Your task to perform on an android device: Empty the shopping cart on amazon. Search for "apple airpods pro" on amazon, select the first entry, add it to the cart, then select checkout. Image 0: 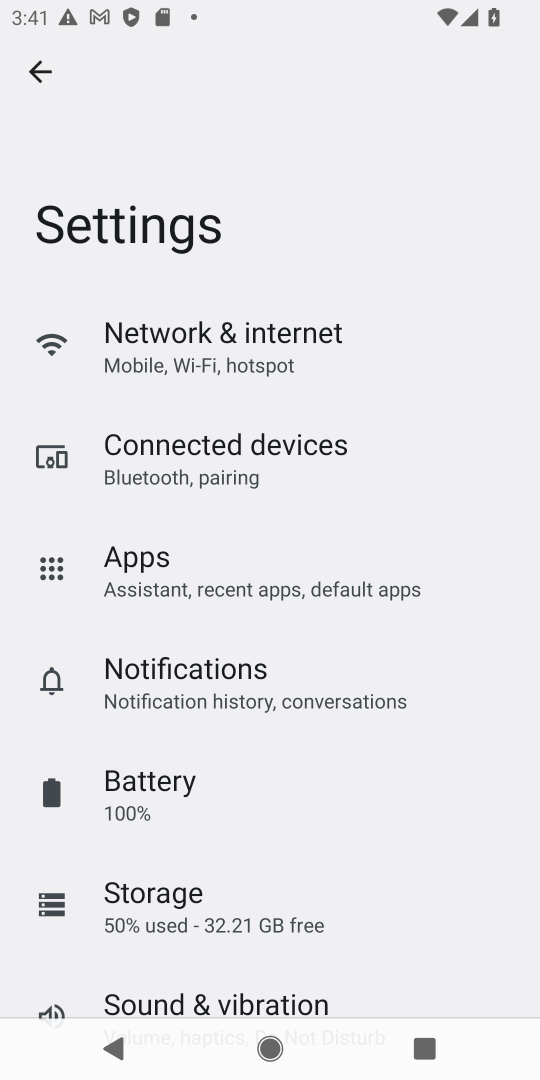
Step 0: press home button
Your task to perform on an android device: Empty the shopping cart on amazon. Search for "apple airpods pro" on amazon, select the first entry, add it to the cart, then select checkout. Image 1: 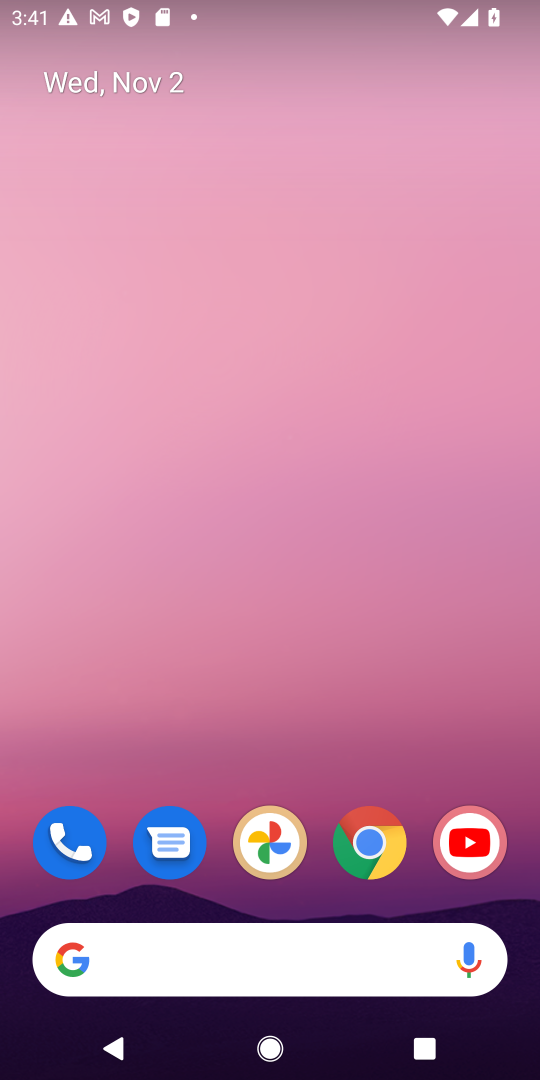
Step 1: click (375, 837)
Your task to perform on an android device: Empty the shopping cart on amazon. Search for "apple airpods pro" on amazon, select the first entry, add it to the cart, then select checkout. Image 2: 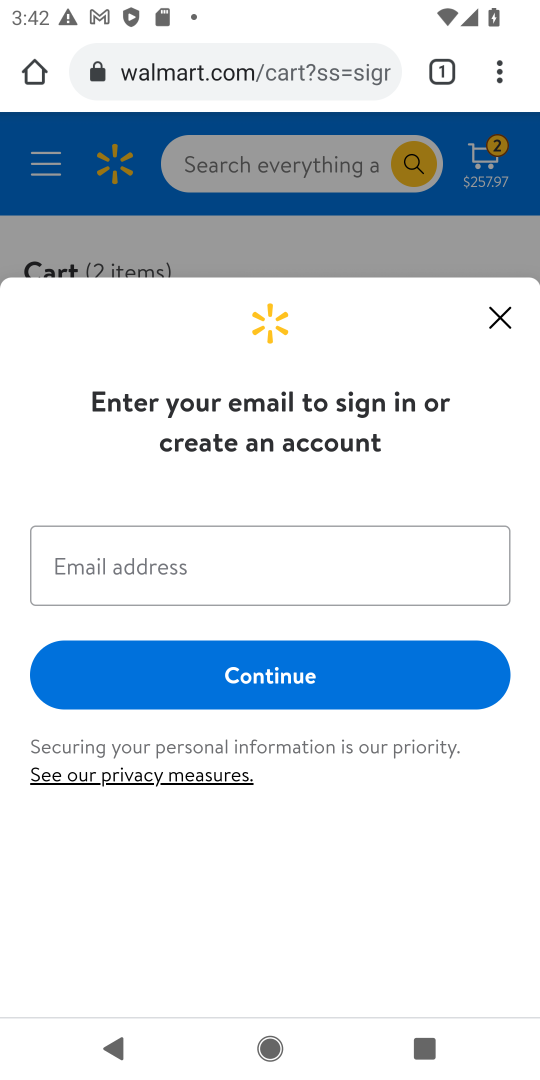
Step 2: click (314, 64)
Your task to perform on an android device: Empty the shopping cart on amazon. Search for "apple airpods pro" on amazon, select the first entry, add it to the cart, then select checkout. Image 3: 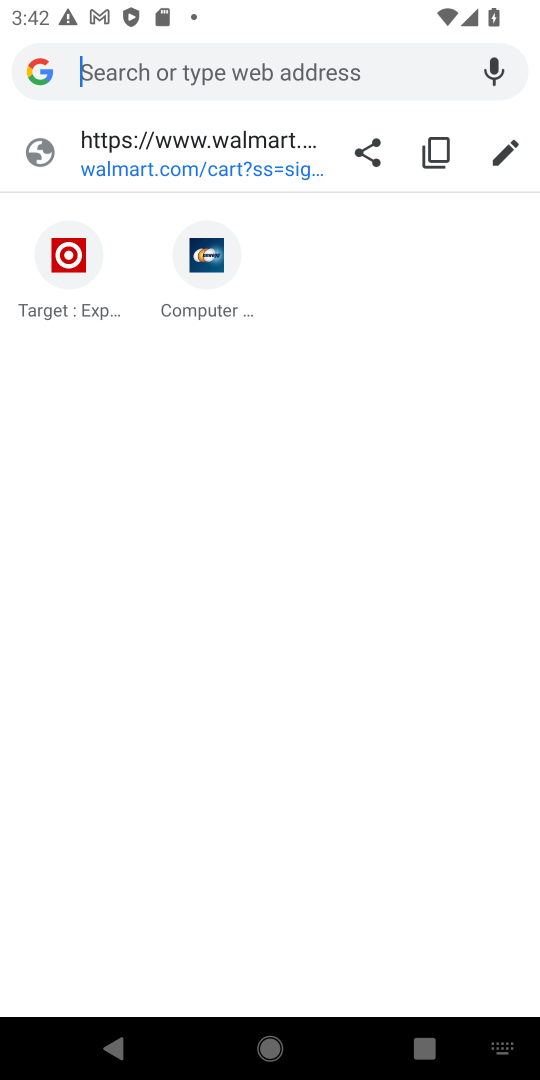
Step 3: type "amazon"
Your task to perform on an android device: Empty the shopping cart on amazon. Search for "apple airpods pro" on amazon, select the first entry, add it to the cart, then select checkout. Image 4: 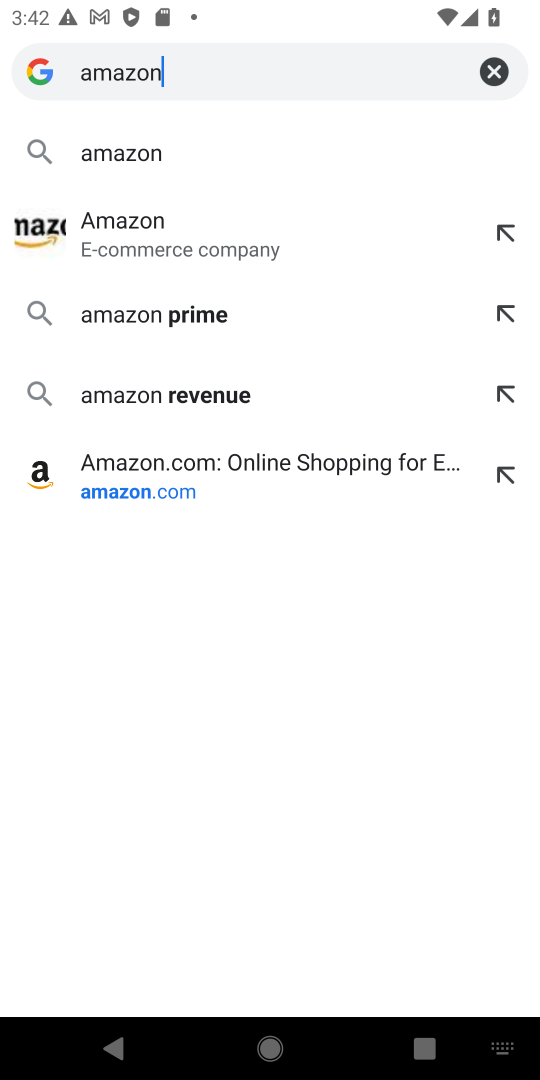
Step 4: click (131, 162)
Your task to perform on an android device: Empty the shopping cart on amazon. Search for "apple airpods pro" on amazon, select the first entry, add it to the cart, then select checkout. Image 5: 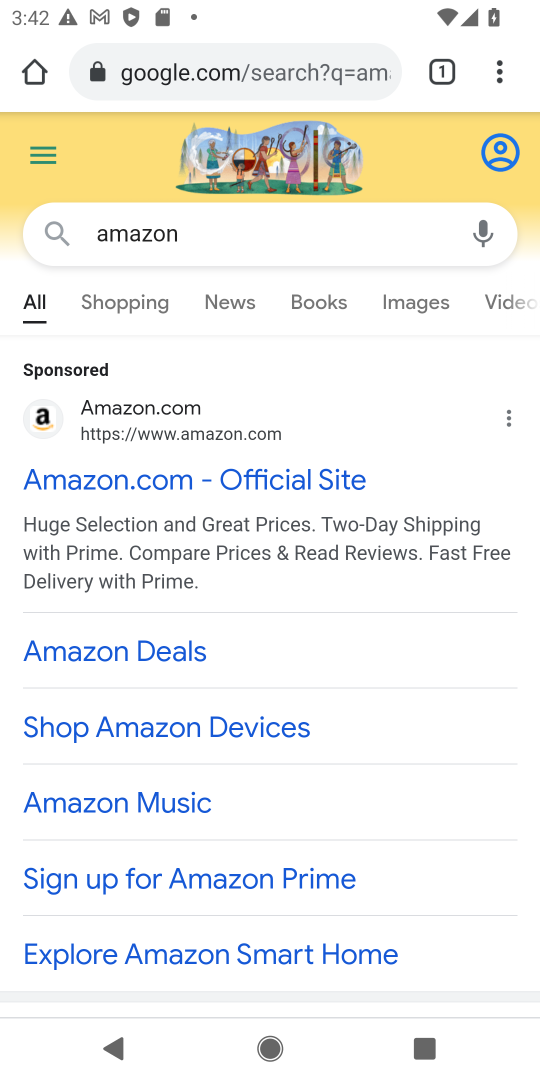
Step 5: click (123, 412)
Your task to perform on an android device: Empty the shopping cart on amazon. Search for "apple airpods pro" on amazon, select the first entry, add it to the cart, then select checkout. Image 6: 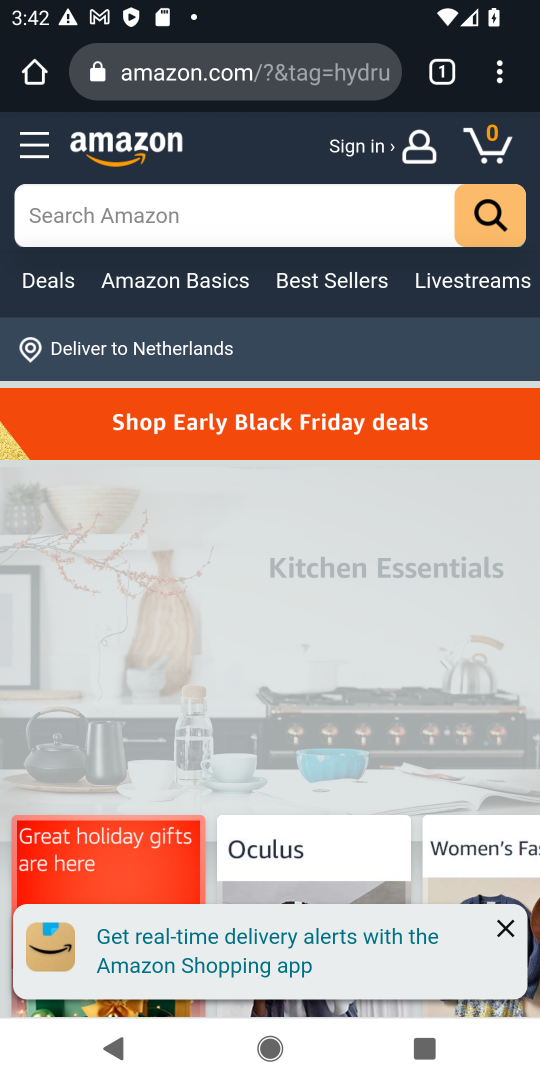
Step 6: click (496, 143)
Your task to perform on an android device: Empty the shopping cart on amazon. Search for "apple airpods pro" on amazon, select the first entry, add it to the cart, then select checkout. Image 7: 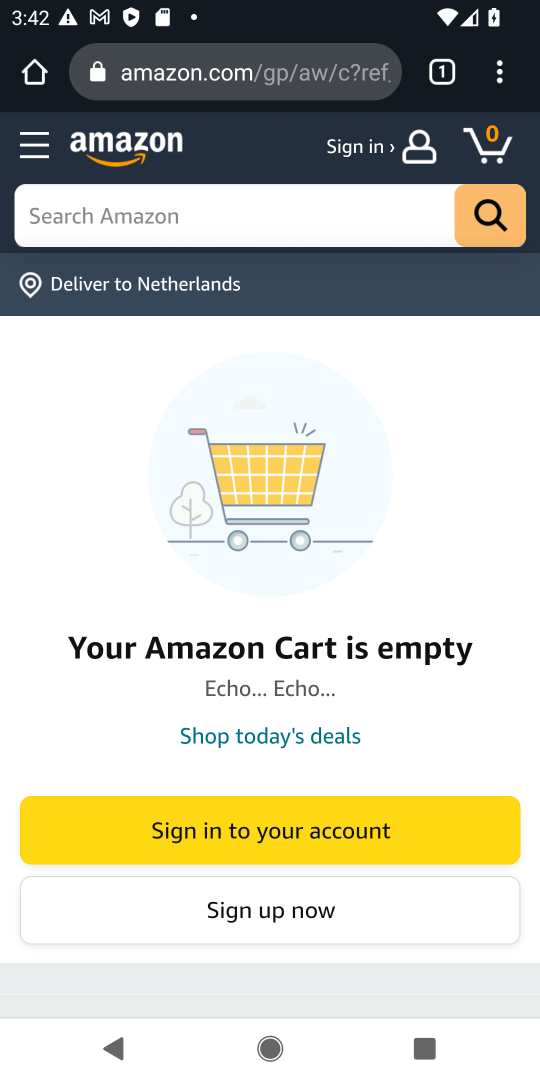
Step 7: click (256, 222)
Your task to perform on an android device: Empty the shopping cart on amazon. Search for "apple airpods pro" on amazon, select the first entry, add it to the cart, then select checkout. Image 8: 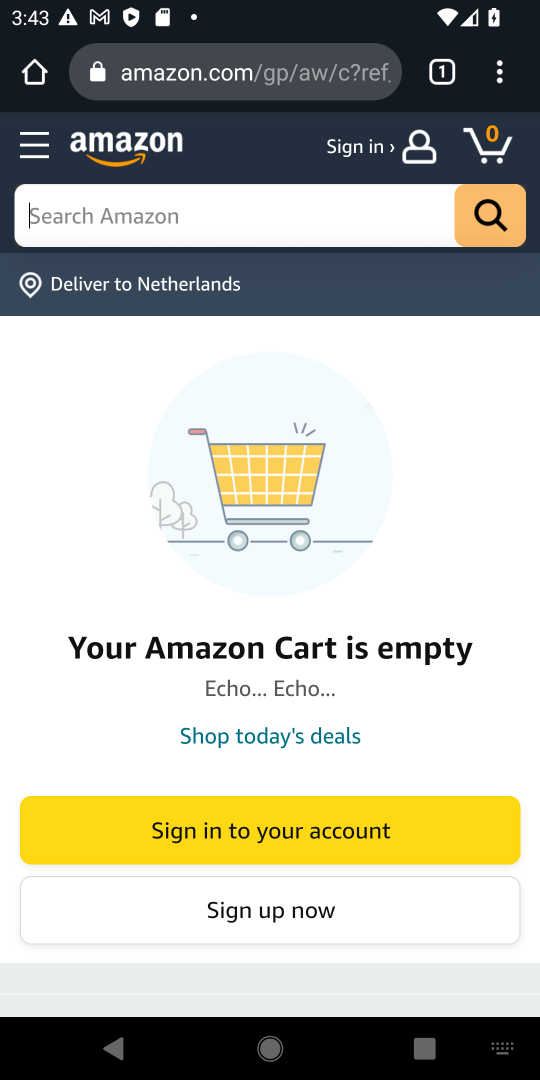
Step 8: type "apple airpods pro"
Your task to perform on an android device: Empty the shopping cart on amazon. Search for "apple airpods pro" on amazon, select the first entry, add it to the cart, then select checkout. Image 9: 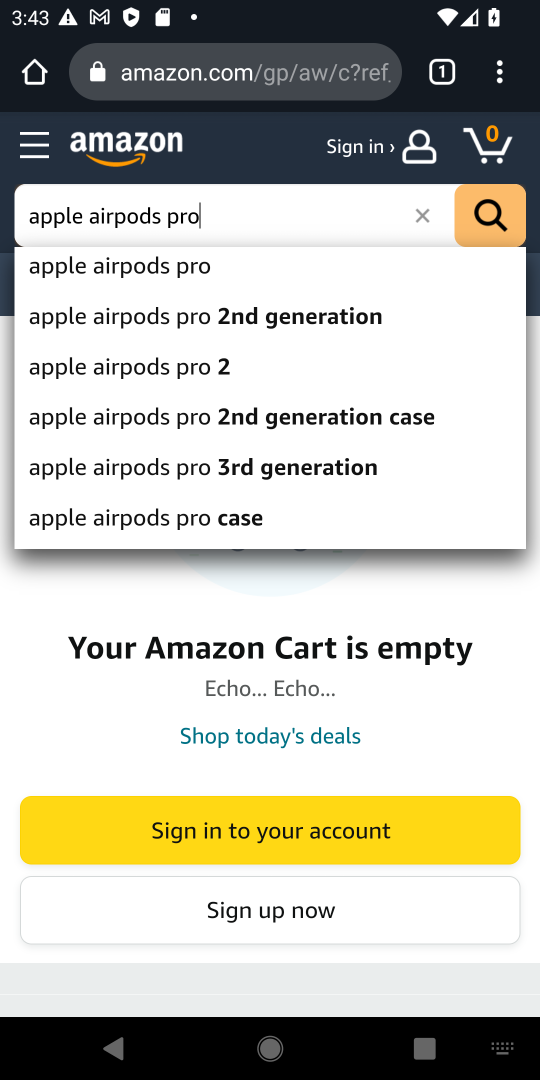
Step 9: click (125, 265)
Your task to perform on an android device: Empty the shopping cart on amazon. Search for "apple airpods pro" on amazon, select the first entry, add it to the cart, then select checkout. Image 10: 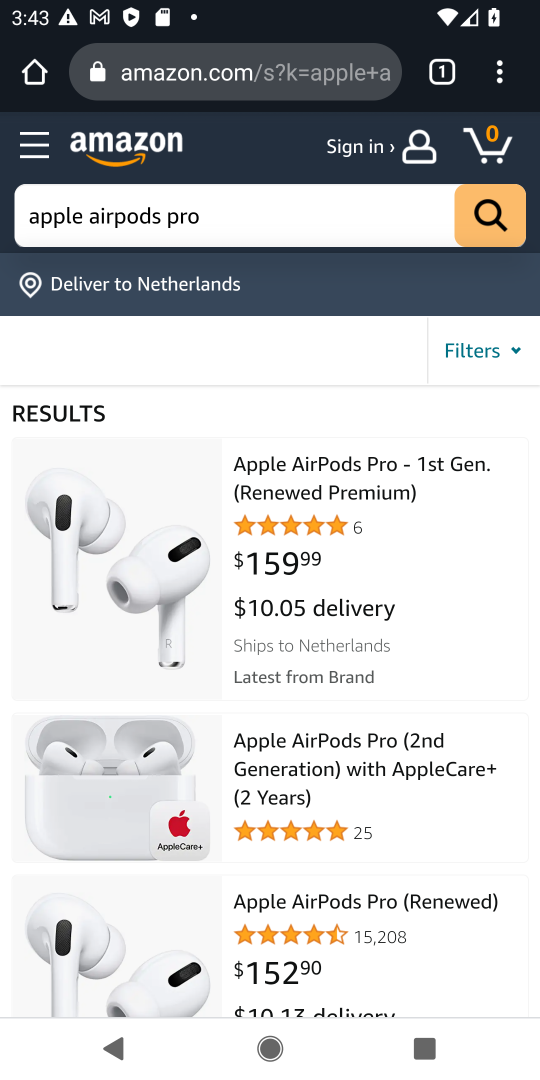
Step 10: click (294, 482)
Your task to perform on an android device: Empty the shopping cart on amazon. Search for "apple airpods pro" on amazon, select the first entry, add it to the cart, then select checkout. Image 11: 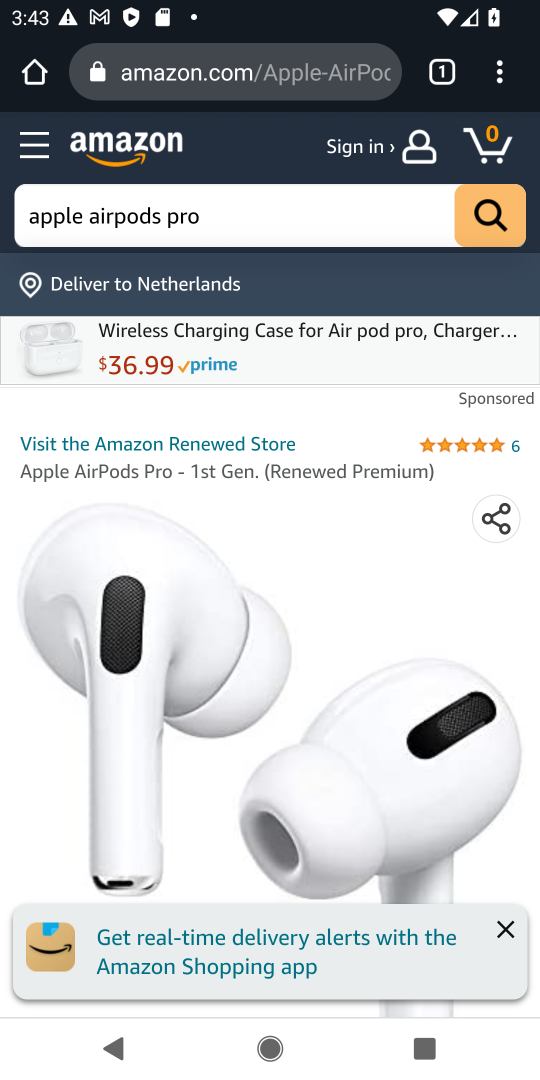
Step 11: drag from (477, 655) to (335, 34)
Your task to perform on an android device: Empty the shopping cart on amazon. Search for "apple airpods pro" on amazon, select the first entry, add it to the cart, then select checkout. Image 12: 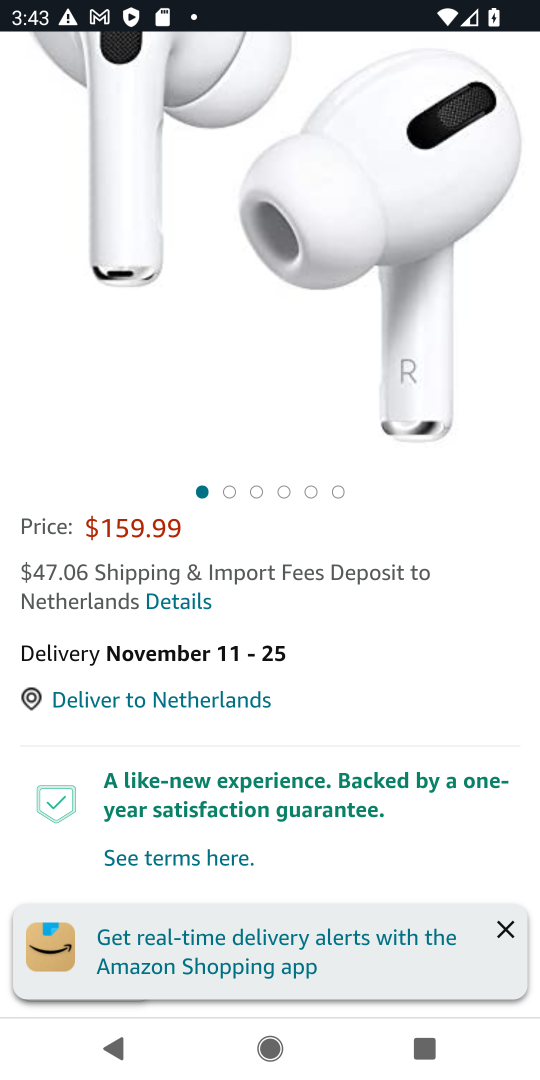
Step 12: drag from (373, 866) to (294, 460)
Your task to perform on an android device: Empty the shopping cart on amazon. Search for "apple airpods pro" on amazon, select the first entry, add it to the cart, then select checkout. Image 13: 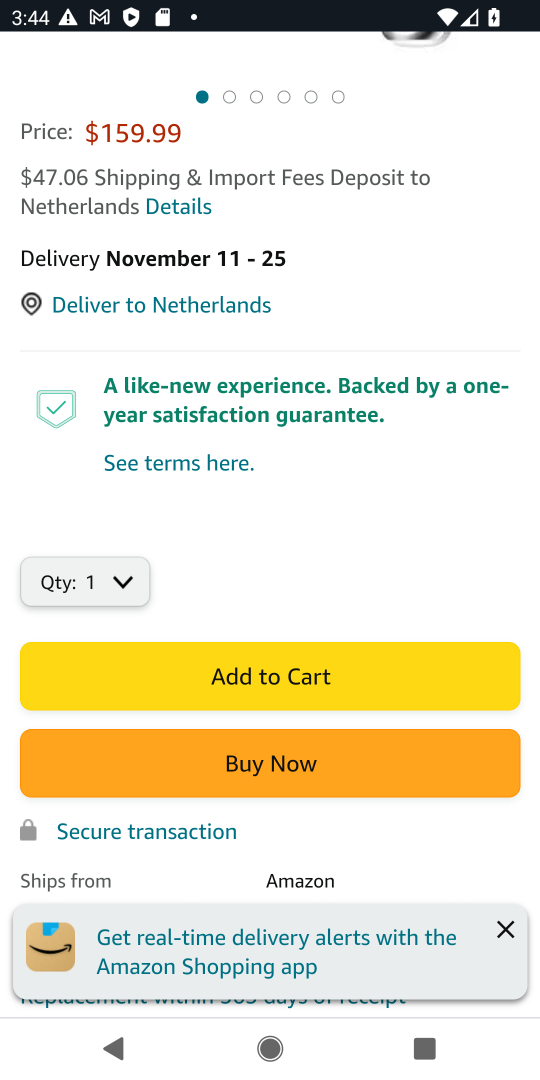
Step 13: click (271, 688)
Your task to perform on an android device: Empty the shopping cart on amazon. Search for "apple airpods pro" on amazon, select the first entry, add it to the cart, then select checkout. Image 14: 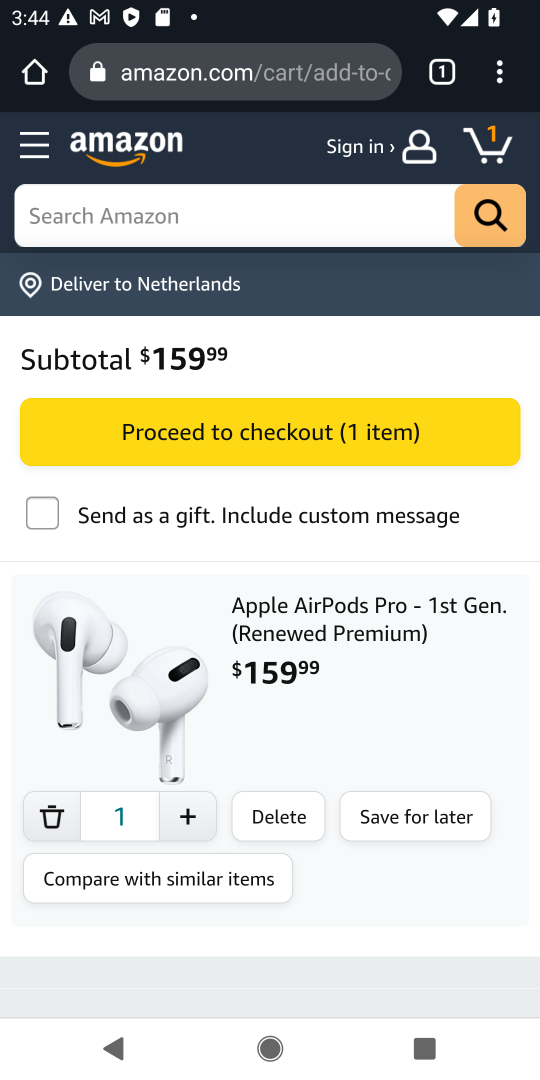
Step 14: click (301, 429)
Your task to perform on an android device: Empty the shopping cart on amazon. Search for "apple airpods pro" on amazon, select the first entry, add it to the cart, then select checkout. Image 15: 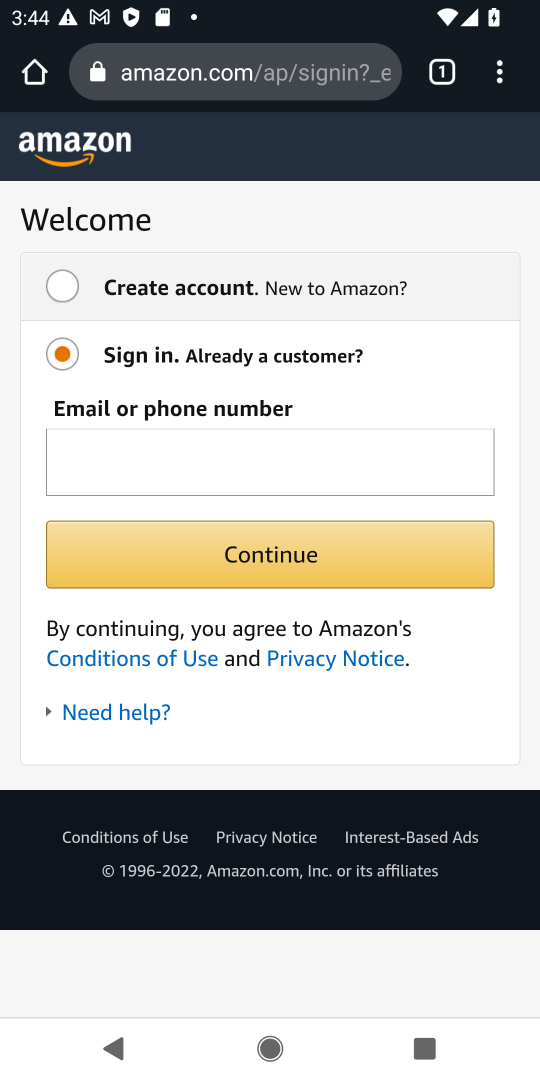
Step 15: task complete